Your task to perform on an android device: View the shopping cart on costco.com. Search for duracell triple a on costco.com, select the first entry, add it to the cart, then select checkout. Image 0: 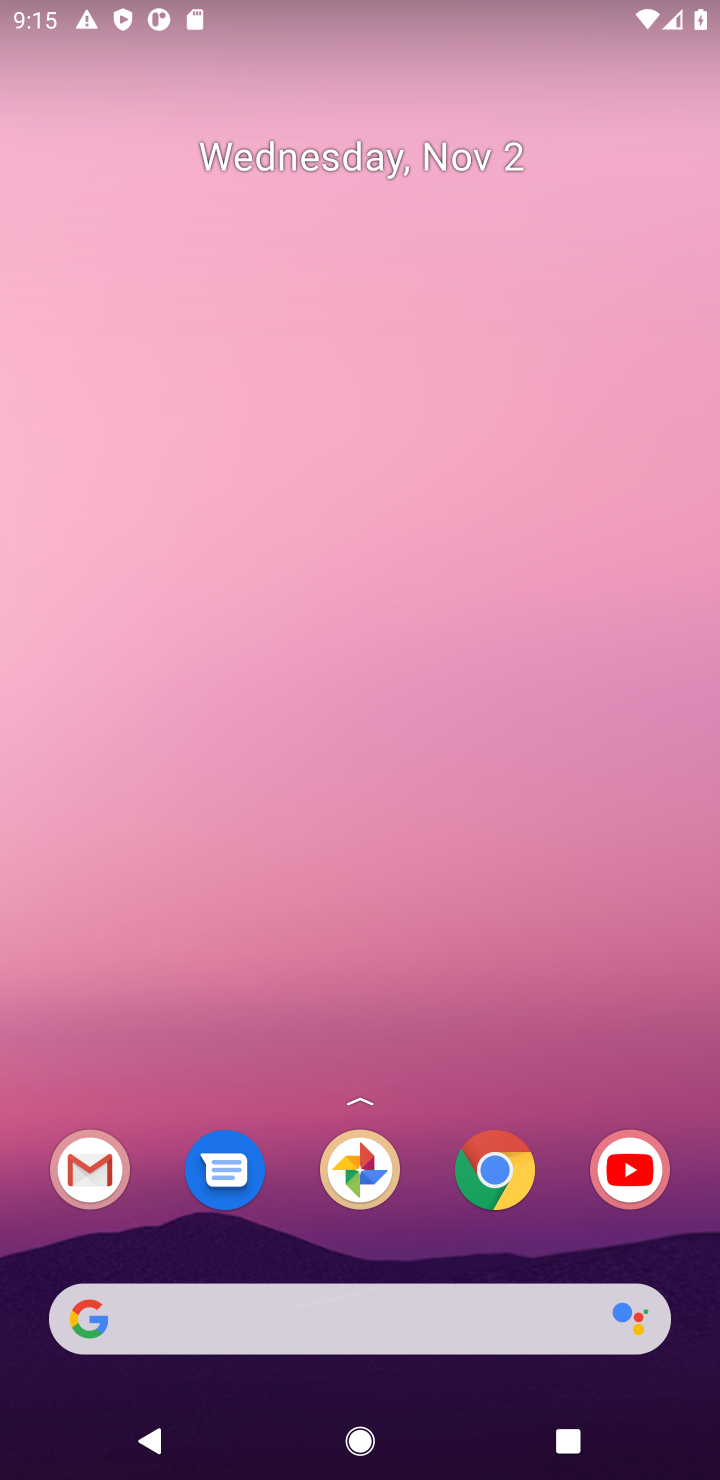
Step 0: click (521, 1191)
Your task to perform on an android device: View the shopping cart on costco.com. Search for duracell triple a on costco.com, select the first entry, add it to the cart, then select checkout. Image 1: 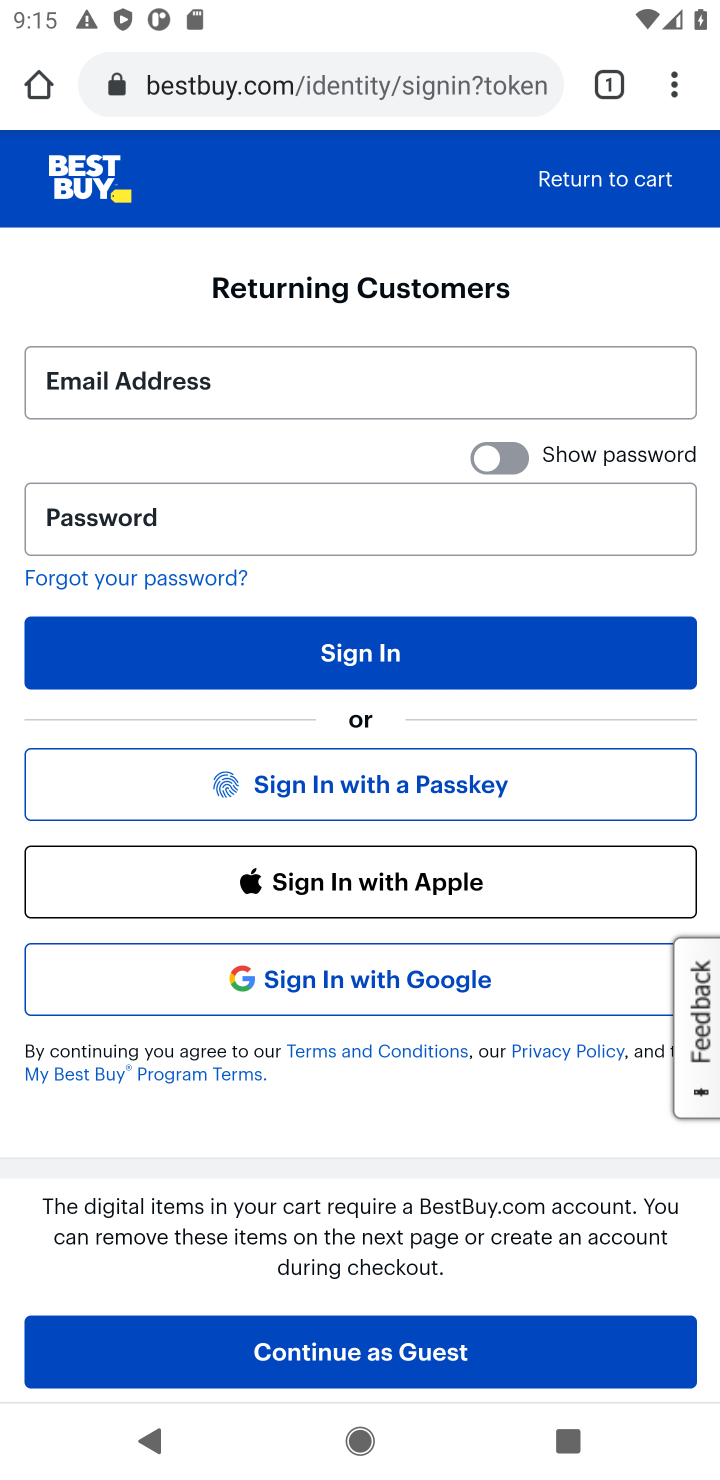
Step 1: click (325, 86)
Your task to perform on an android device: View the shopping cart on costco.com. Search for duracell triple a on costco.com, select the first entry, add it to the cart, then select checkout. Image 2: 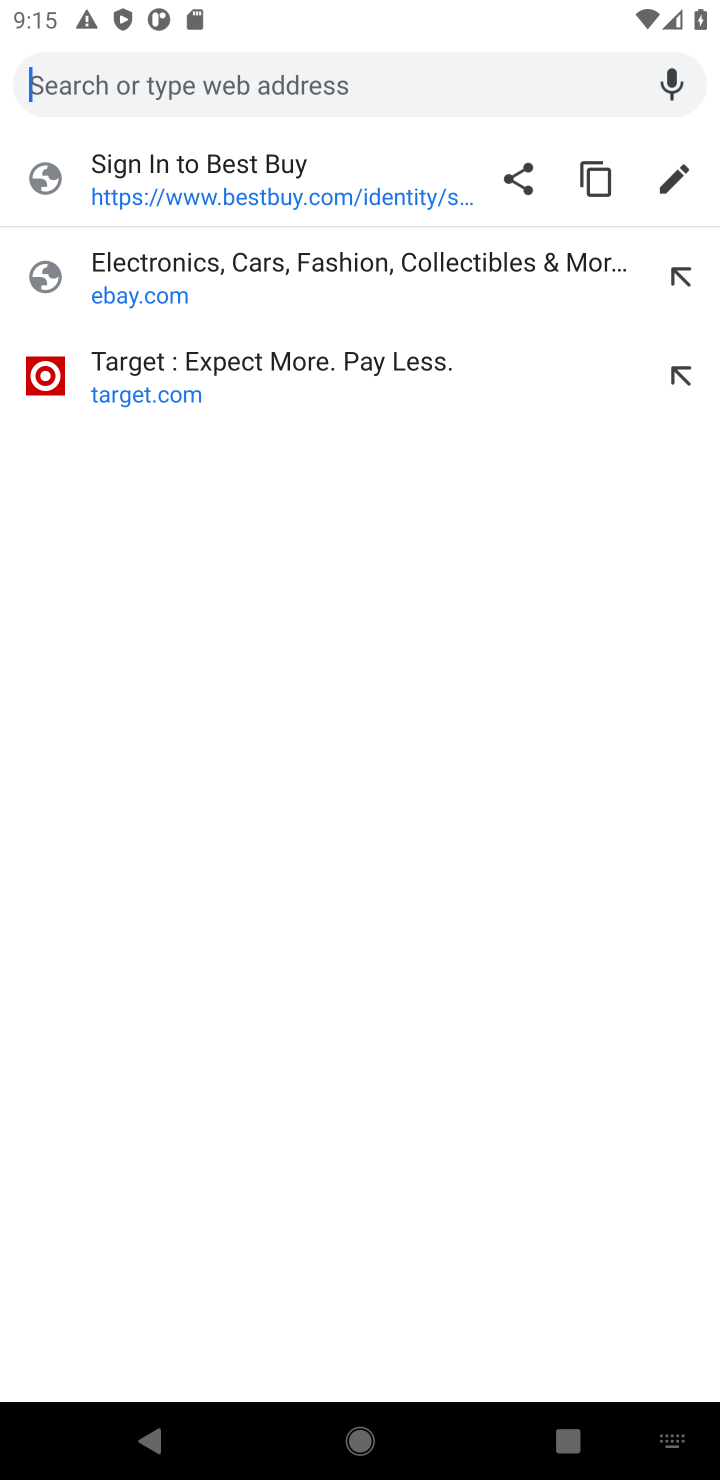
Step 2: type "costco.com"
Your task to perform on an android device: View the shopping cart on costco.com. Search for duracell triple a on costco.com, select the first entry, add it to the cart, then select checkout. Image 3: 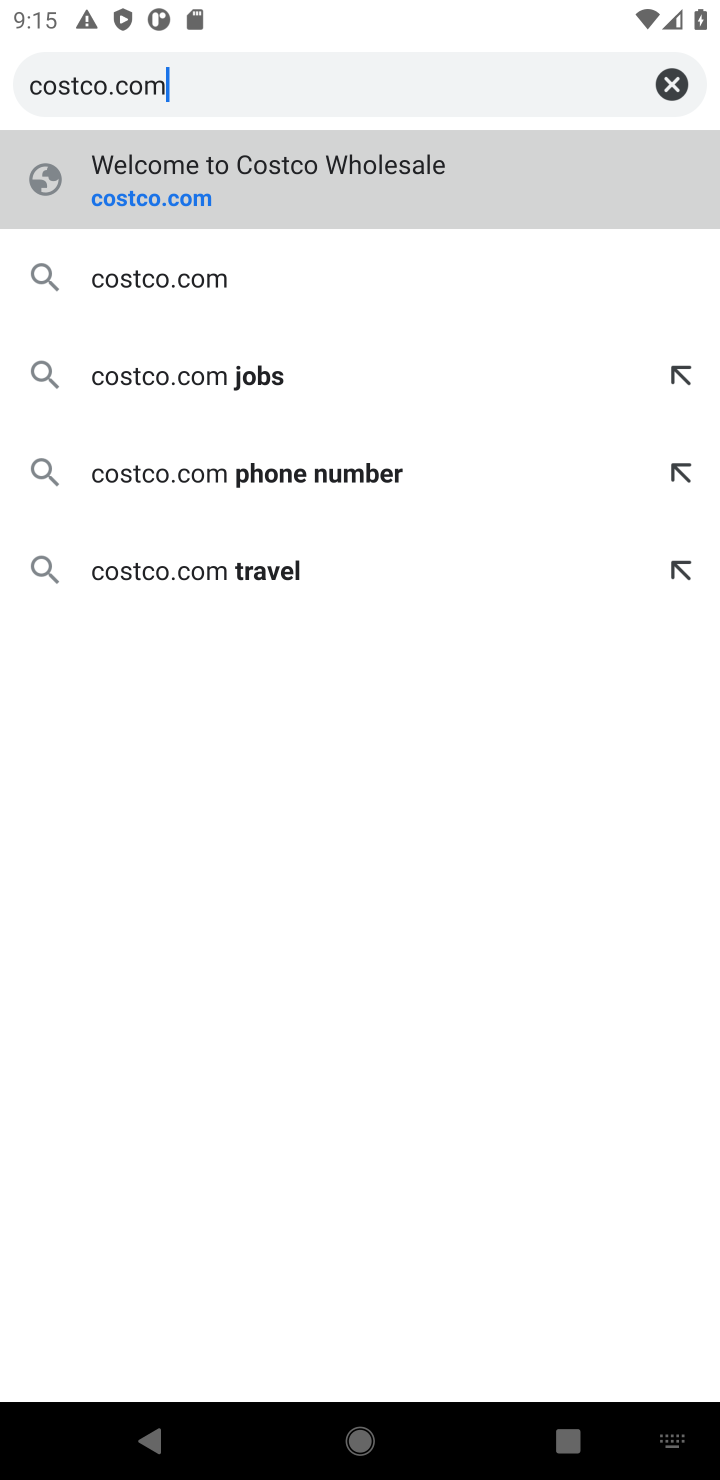
Step 3: press enter
Your task to perform on an android device: View the shopping cart on costco.com. Search for duracell triple a on costco.com, select the first entry, add it to the cart, then select checkout. Image 4: 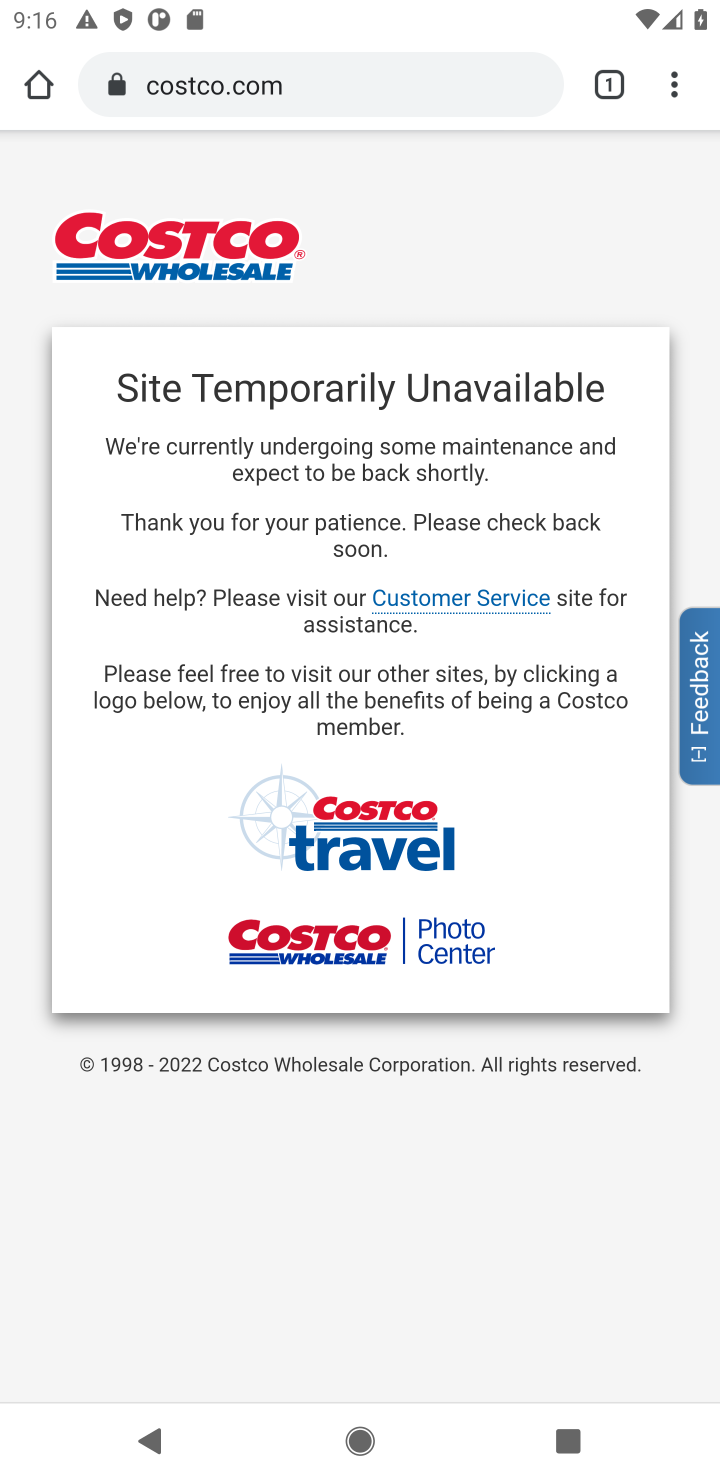
Step 4: task complete